Your task to perform on an android device: toggle data saver in the chrome app Image 0: 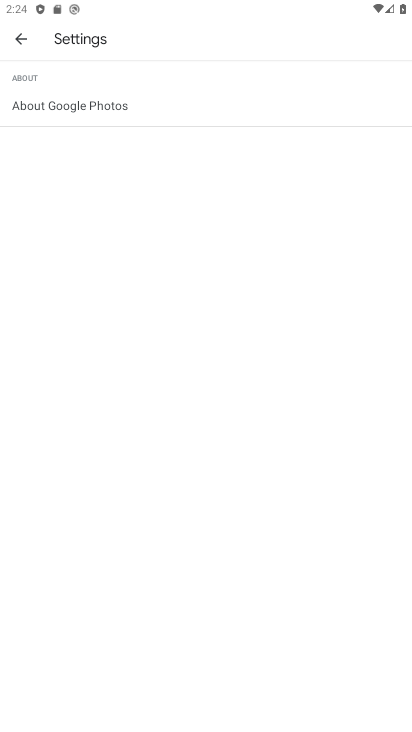
Step 0: press home button
Your task to perform on an android device: toggle data saver in the chrome app Image 1: 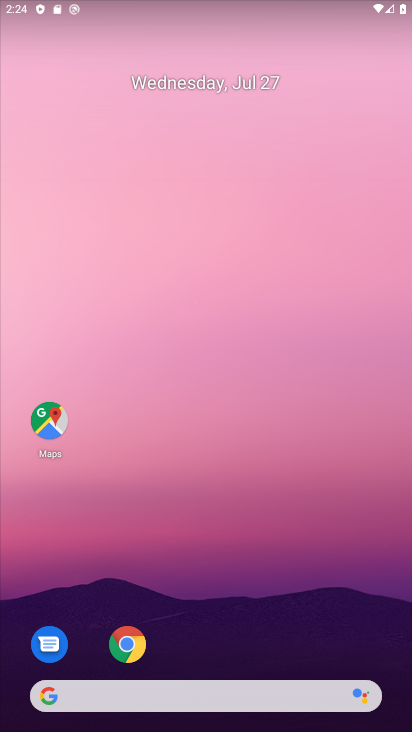
Step 1: click (132, 650)
Your task to perform on an android device: toggle data saver in the chrome app Image 2: 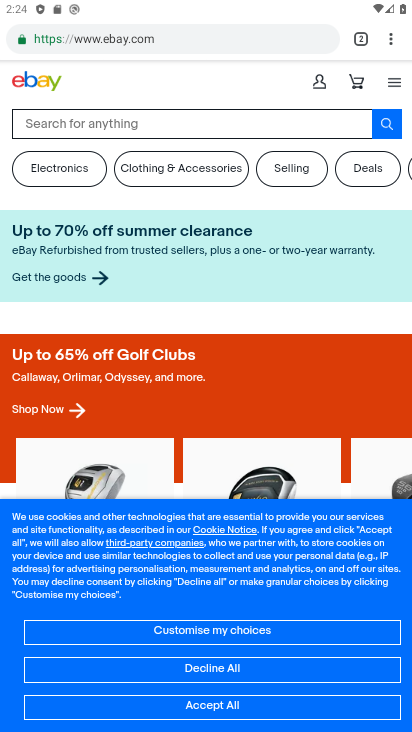
Step 2: click (389, 43)
Your task to perform on an android device: toggle data saver in the chrome app Image 3: 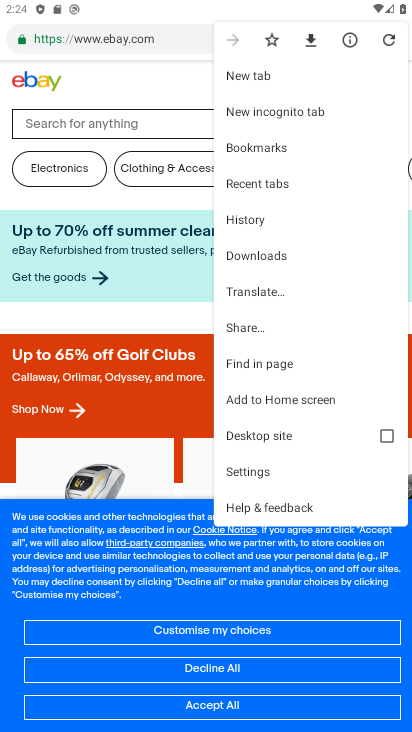
Step 3: click (268, 478)
Your task to perform on an android device: toggle data saver in the chrome app Image 4: 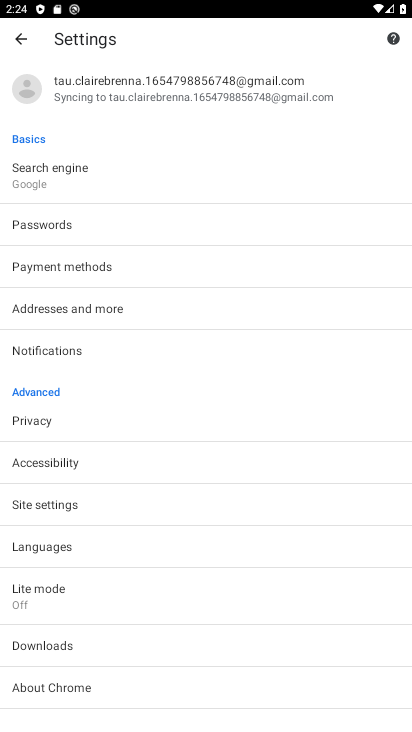
Step 4: click (68, 600)
Your task to perform on an android device: toggle data saver in the chrome app Image 5: 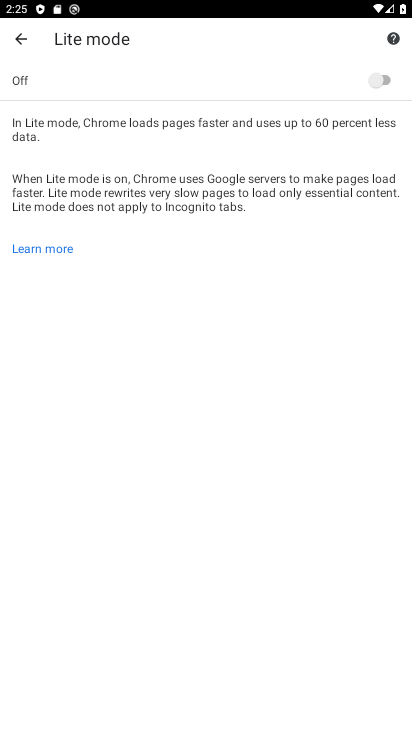
Step 5: click (351, 87)
Your task to perform on an android device: toggle data saver in the chrome app Image 6: 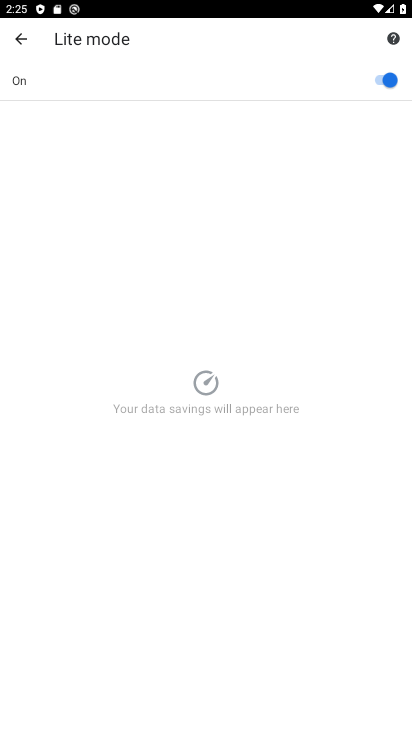
Step 6: task complete